Your task to perform on an android device: open wifi settings Image 0: 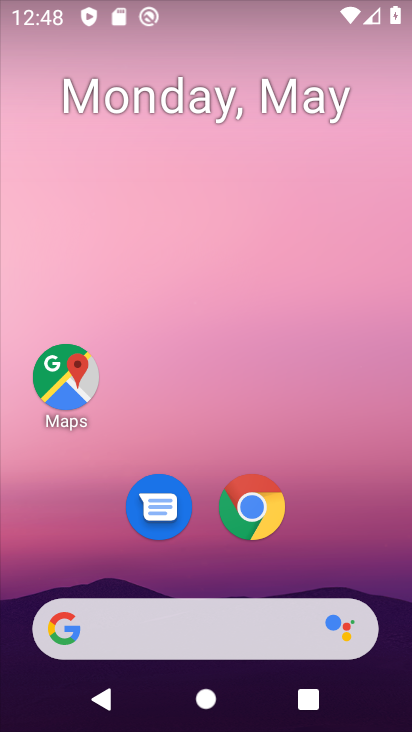
Step 0: click (246, 503)
Your task to perform on an android device: open wifi settings Image 1: 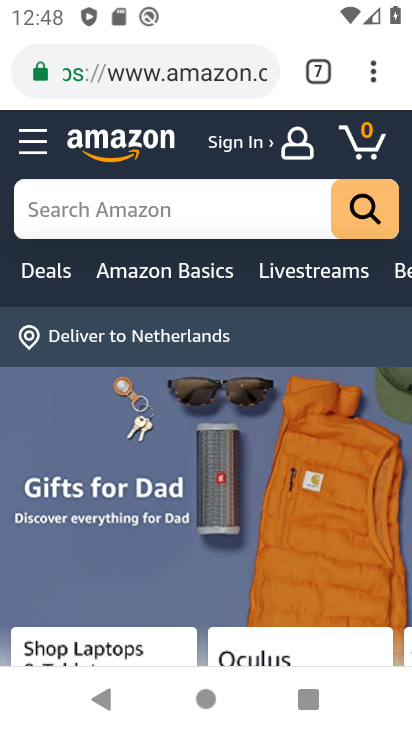
Step 1: press home button
Your task to perform on an android device: open wifi settings Image 2: 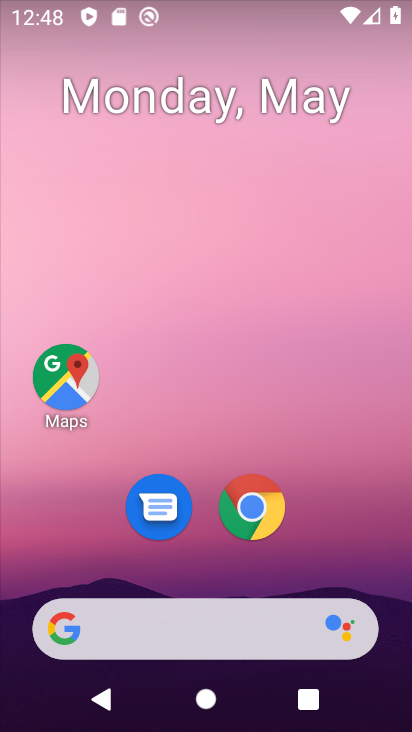
Step 2: drag from (230, 718) to (230, 105)
Your task to perform on an android device: open wifi settings Image 3: 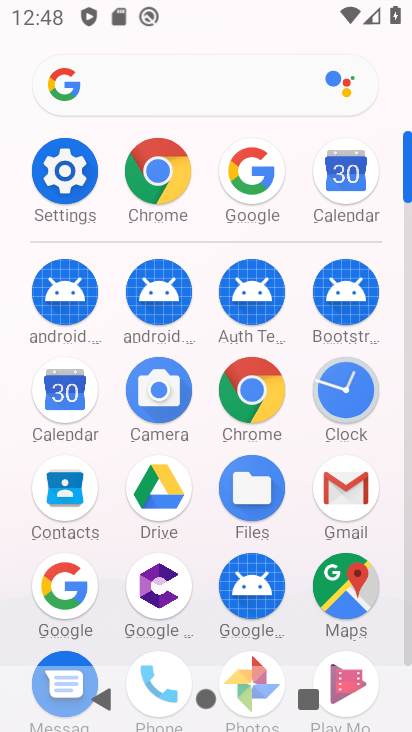
Step 3: click (57, 170)
Your task to perform on an android device: open wifi settings Image 4: 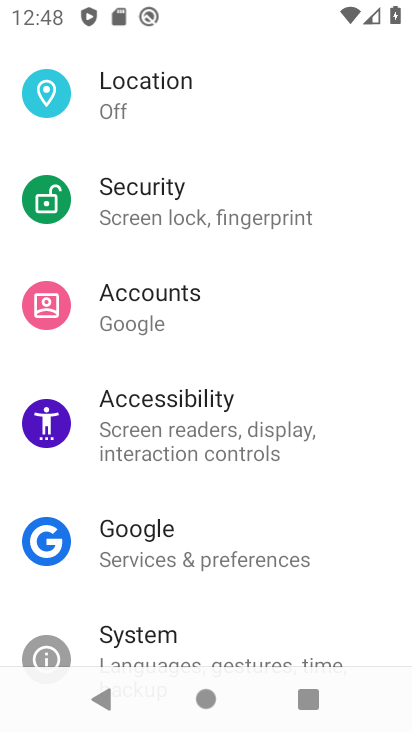
Step 4: drag from (285, 111) to (314, 532)
Your task to perform on an android device: open wifi settings Image 5: 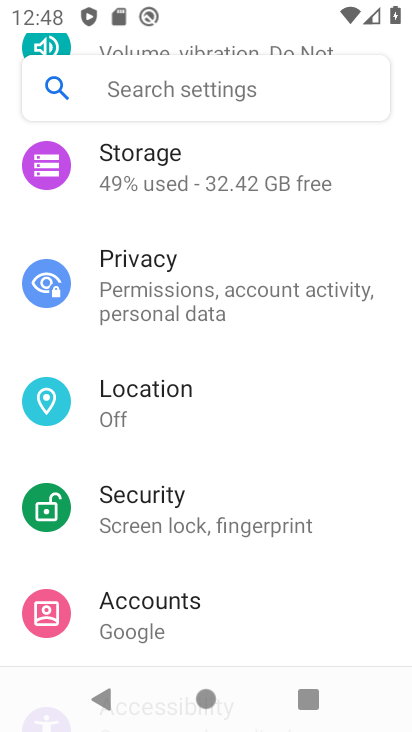
Step 5: drag from (276, 152) to (287, 622)
Your task to perform on an android device: open wifi settings Image 6: 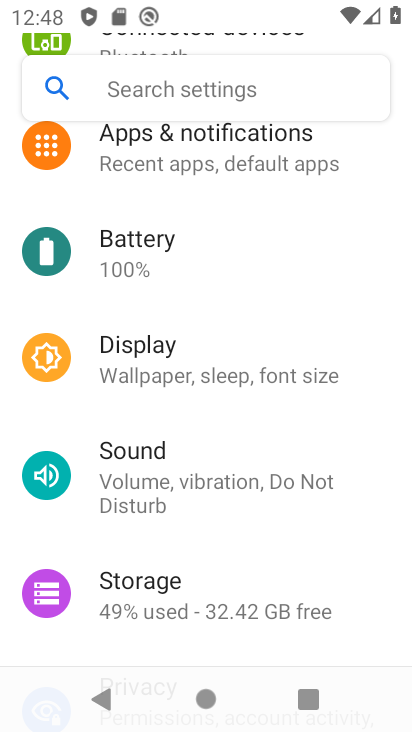
Step 6: drag from (279, 132) to (313, 562)
Your task to perform on an android device: open wifi settings Image 7: 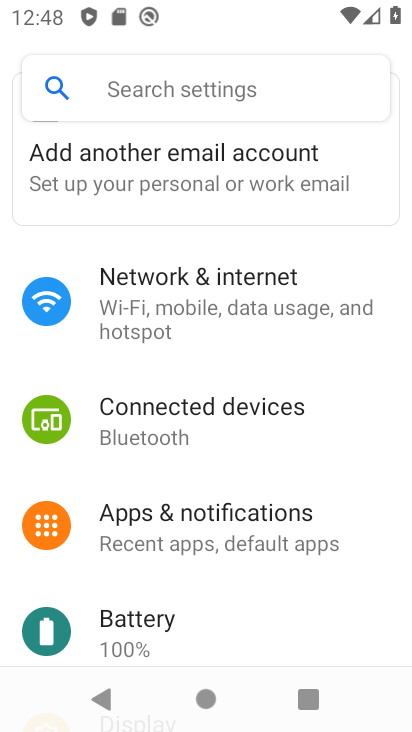
Step 7: click (156, 291)
Your task to perform on an android device: open wifi settings Image 8: 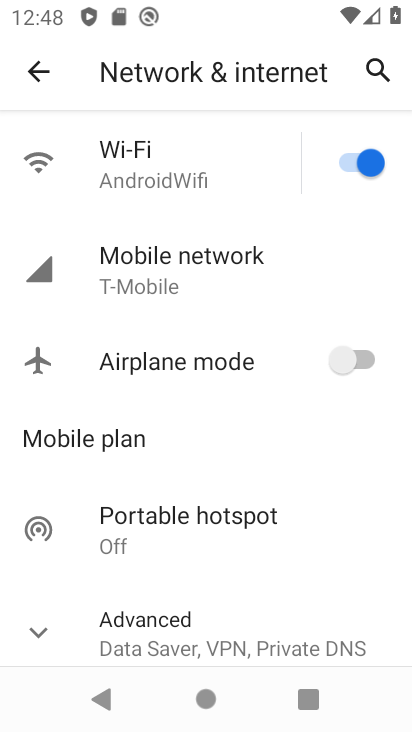
Step 8: click (120, 149)
Your task to perform on an android device: open wifi settings Image 9: 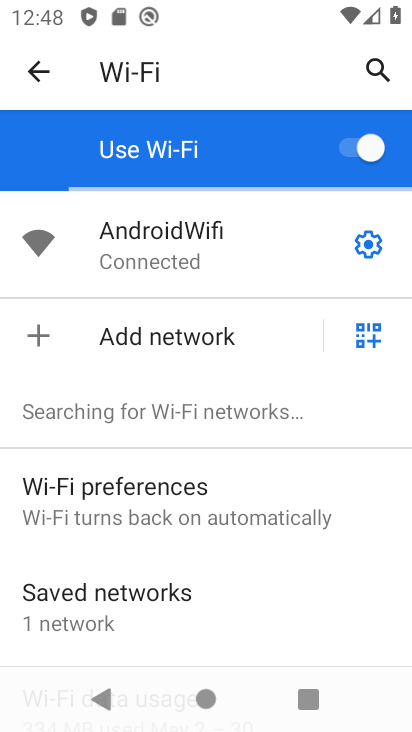
Step 9: task complete